Your task to perform on an android device: refresh tabs in the chrome app Image 0: 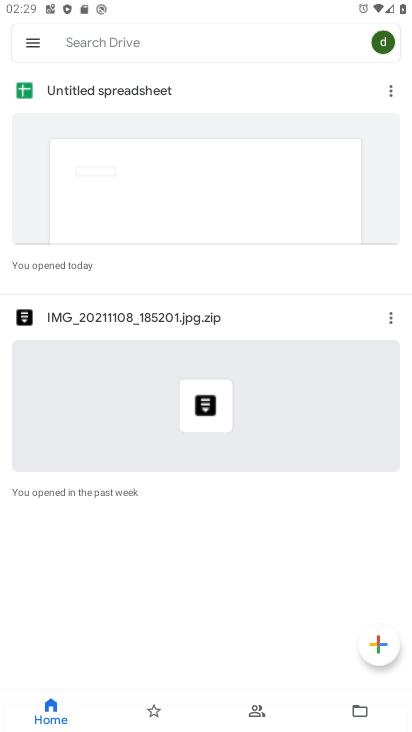
Step 0: press home button
Your task to perform on an android device: refresh tabs in the chrome app Image 1: 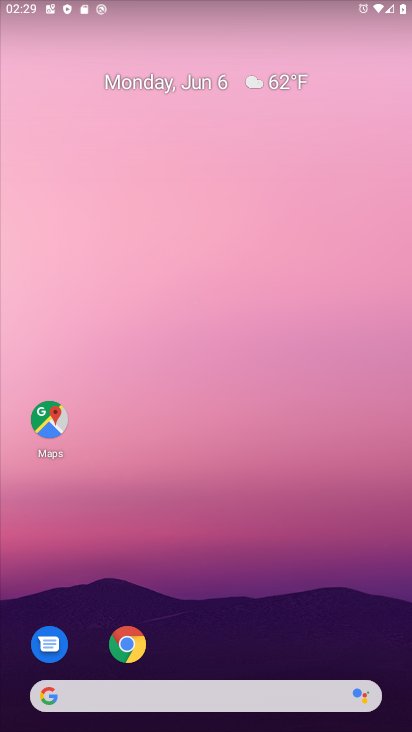
Step 1: click (131, 642)
Your task to perform on an android device: refresh tabs in the chrome app Image 2: 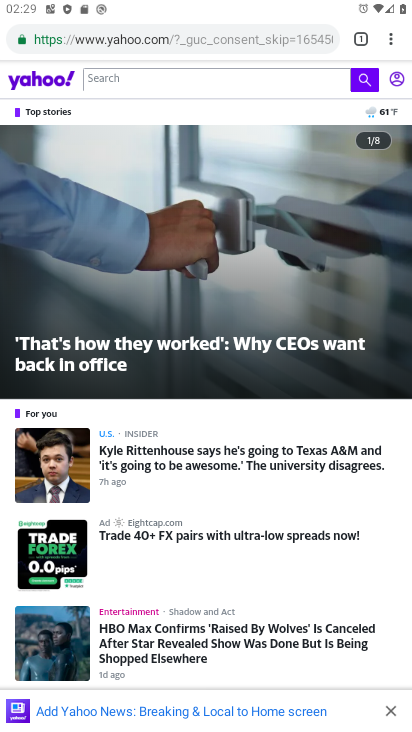
Step 2: click (386, 37)
Your task to perform on an android device: refresh tabs in the chrome app Image 3: 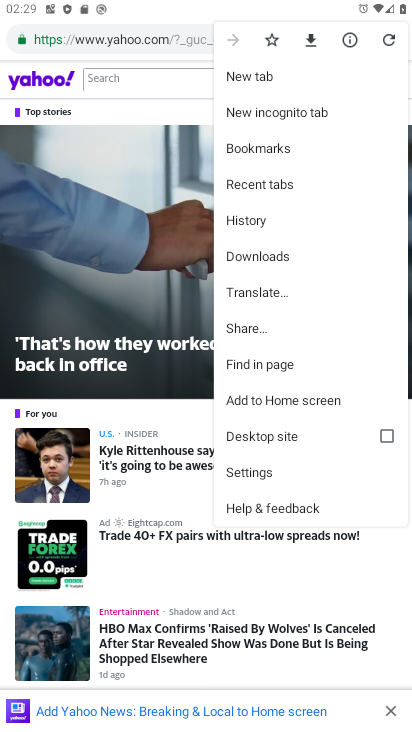
Step 3: click (385, 43)
Your task to perform on an android device: refresh tabs in the chrome app Image 4: 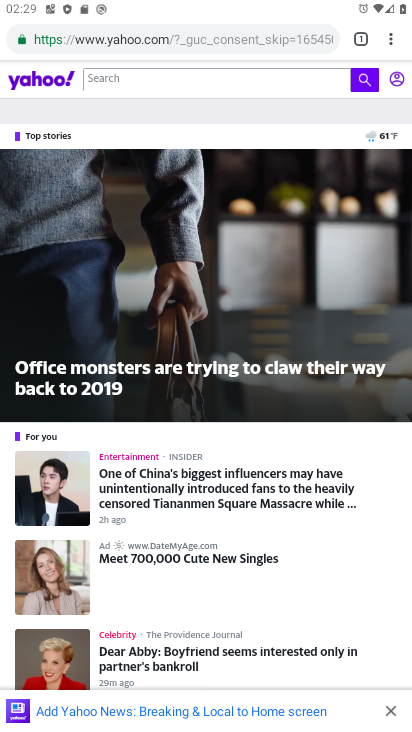
Step 4: task complete